Your task to perform on an android device: turn pop-ups off in chrome Image 0: 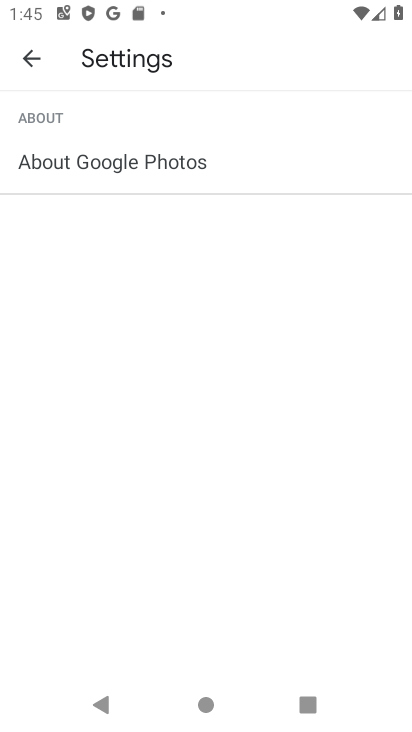
Step 0: press home button
Your task to perform on an android device: turn pop-ups off in chrome Image 1: 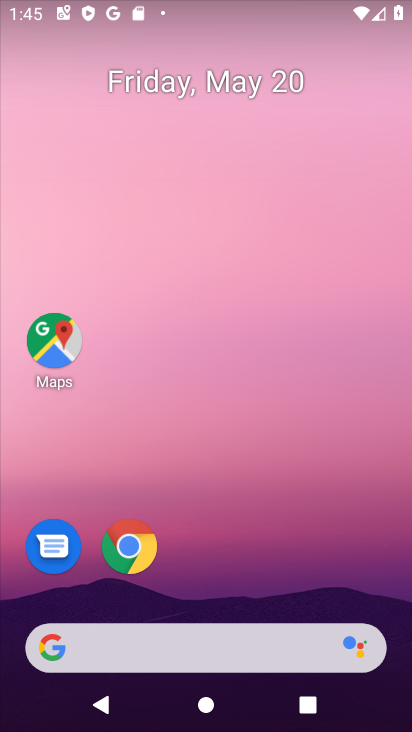
Step 1: drag from (308, 633) to (261, 52)
Your task to perform on an android device: turn pop-ups off in chrome Image 2: 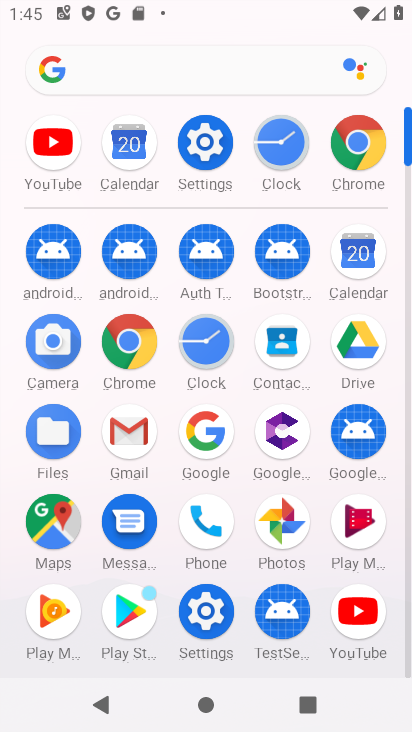
Step 2: click (124, 348)
Your task to perform on an android device: turn pop-ups off in chrome Image 3: 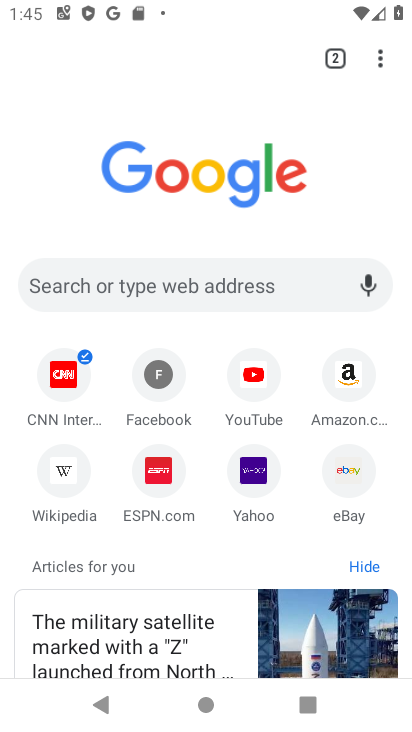
Step 3: drag from (380, 62) to (241, 416)
Your task to perform on an android device: turn pop-ups off in chrome Image 4: 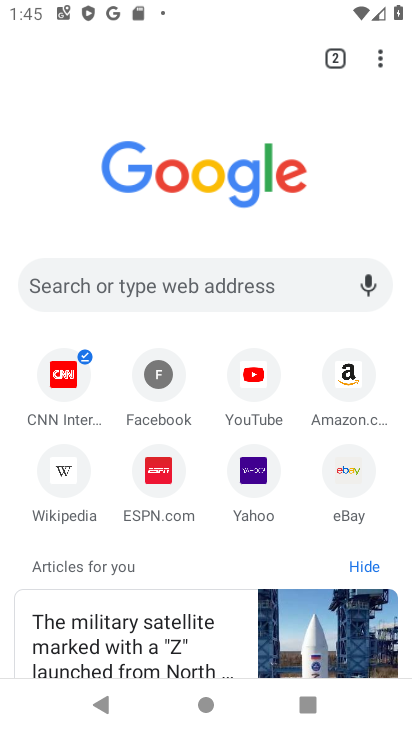
Step 4: click (198, 464)
Your task to perform on an android device: turn pop-ups off in chrome Image 5: 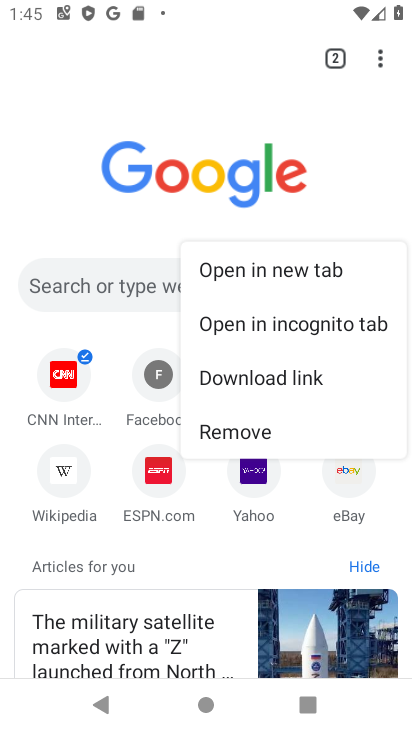
Step 5: click (327, 139)
Your task to perform on an android device: turn pop-ups off in chrome Image 6: 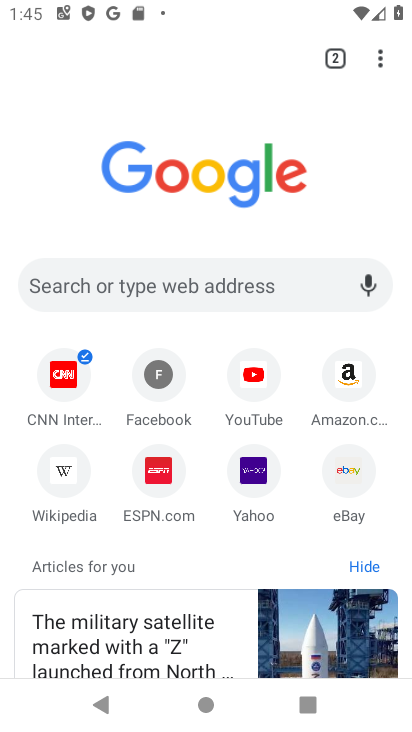
Step 6: drag from (376, 57) to (189, 492)
Your task to perform on an android device: turn pop-ups off in chrome Image 7: 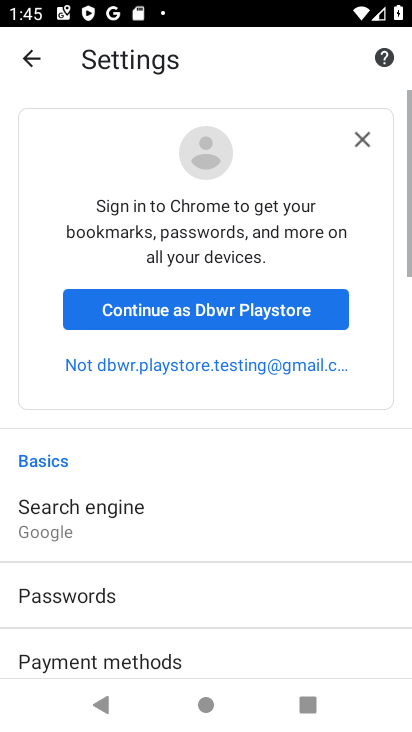
Step 7: drag from (222, 587) to (305, 4)
Your task to perform on an android device: turn pop-ups off in chrome Image 8: 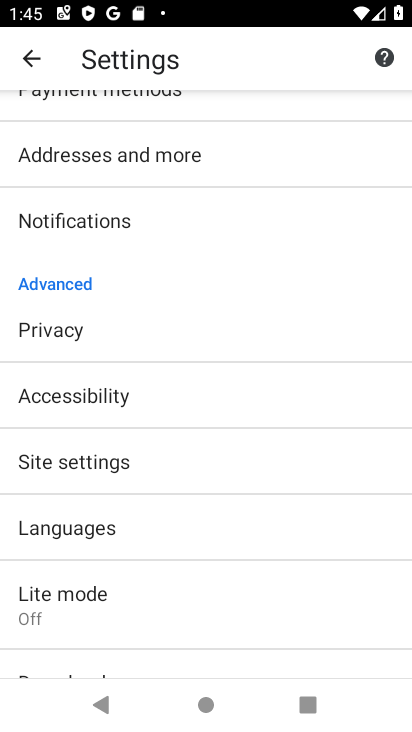
Step 8: click (157, 474)
Your task to perform on an android device: turn pop-ups off in chrome Image 9: 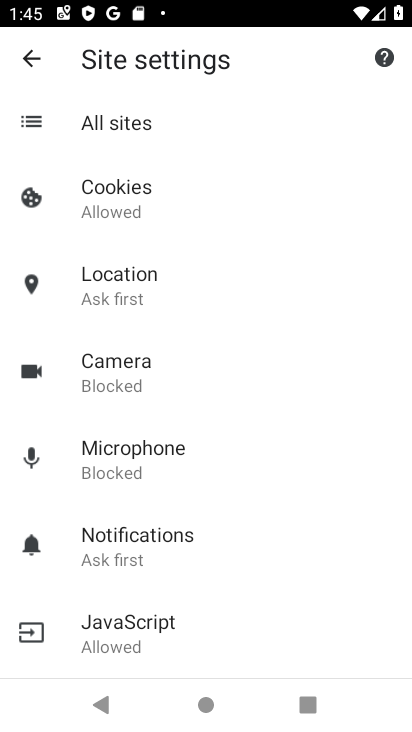
Step 9: drag from (178, 596) to (241, 126)
Your task to perform on an android device: turn pop-ups off in chrome Image 10: 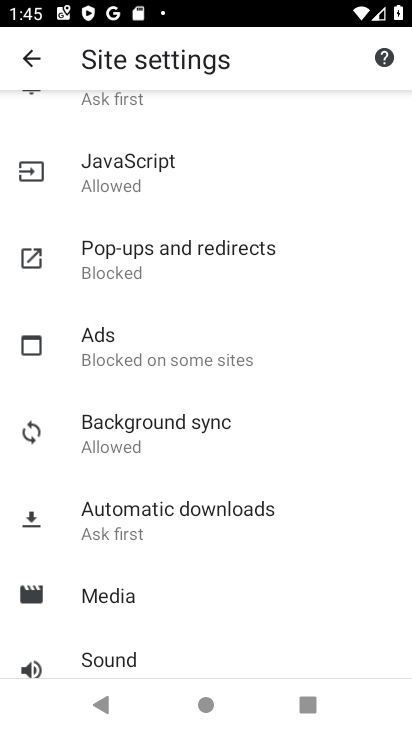
Step 10: click (195, 249)
Your task to perform on an android device: turn pop-ups off in chrome Image 11: 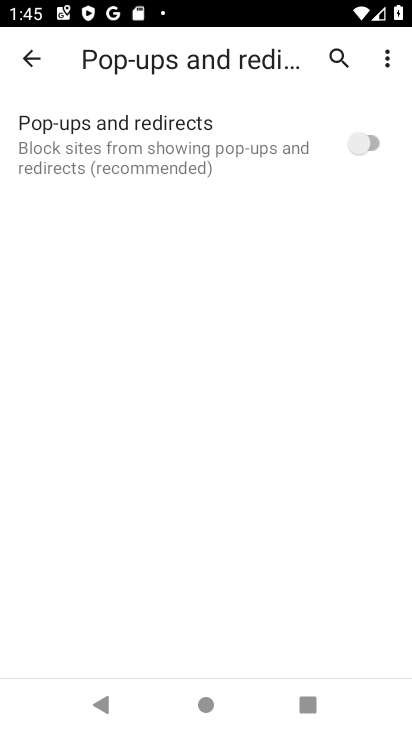
Step 11: task complete